Your task to perform on an android device: toggle wifi Image 0: 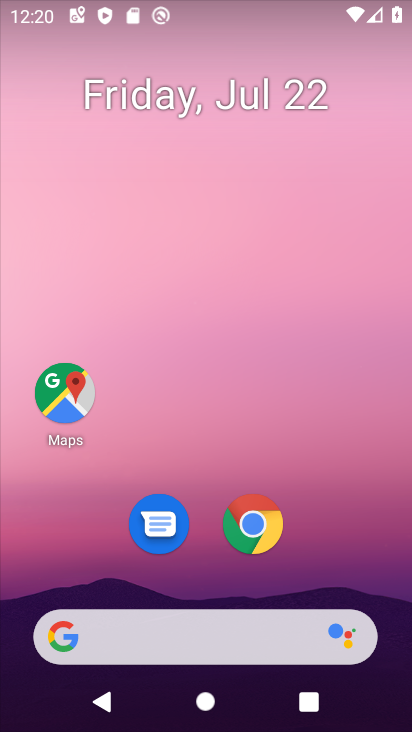
Step 0: drag from (303, 455) to (301, 24)
Your task to perform on an android device: toggle wifi Image 1: 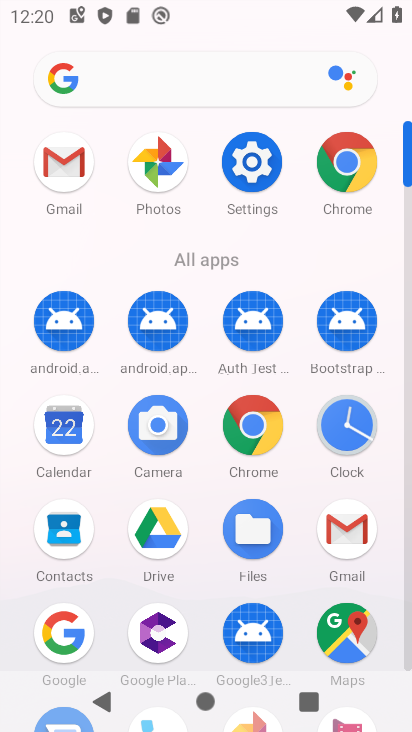
Step 1: click (249, 147)
Your task to perform on an android device: toggle wifi Image 2: 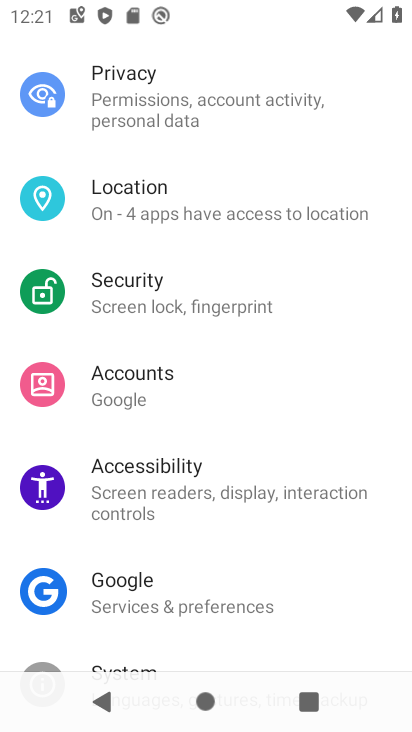
Step 2: drag from (234, 156) to (211, 630)
Your task to perform on an android device: toggle wifi Image 3: 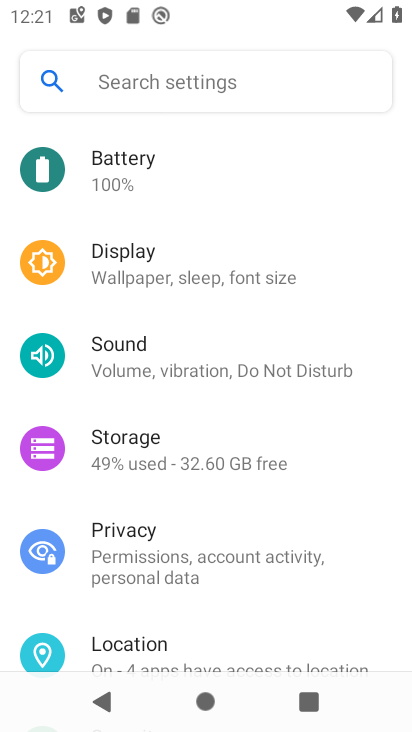
Step 3: drag from (218, 137) to (189, 667)
Your task to perform on an android device: toggle wifi Image 4: 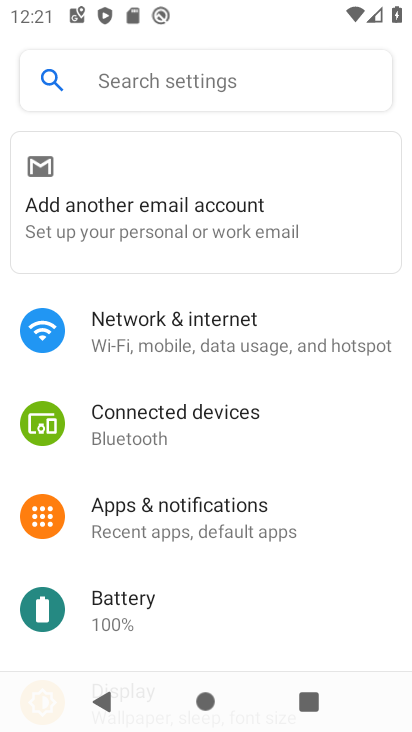
Step 4: click (214, 347)
Your task to perform on an android device: toggle wifi Image 5: 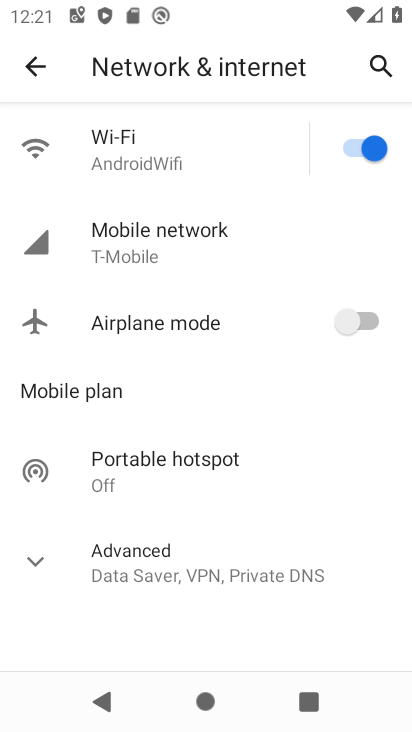
Step 5: click (372, 147)
Your task to perform on an android device: toggle wifi Image 6: 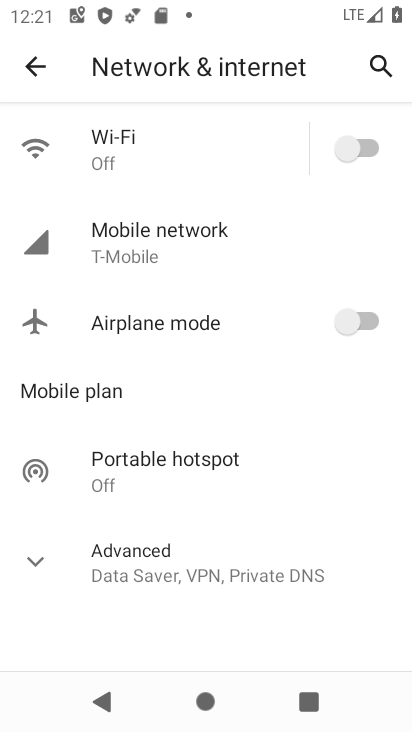
Step 6: task complete